Your task to perform on an android device: turn on bluetooth scan Image 0: 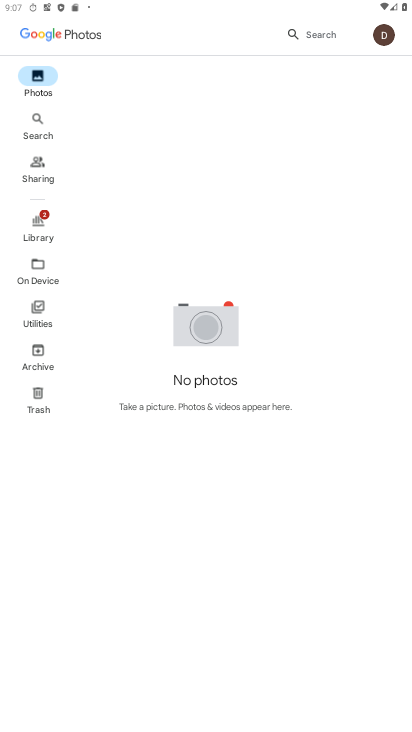
Step 0: press home button
Your task to perform on an android device: turn on bluetooth scan Image 1: 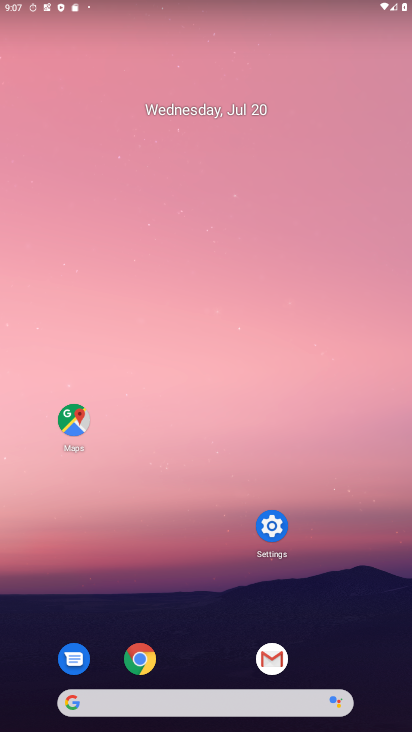
Step 1: click (281, 519)
Your task to perform on an android device: turn on bluetooth scan Image 2: 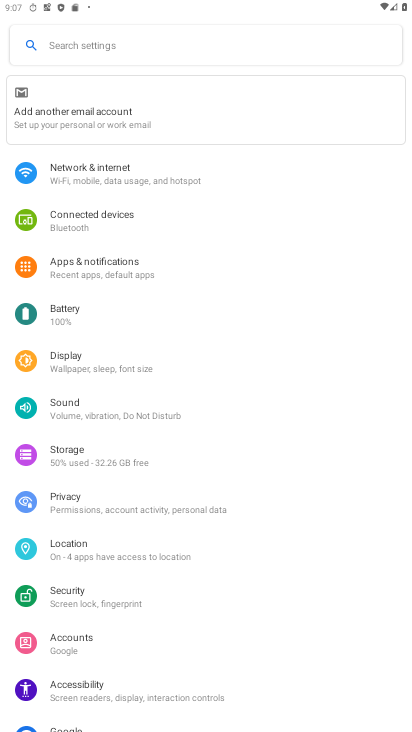
Step 2: click (104, 544)
Your task to perform on an android device: turn on bluetooth scan Image 3: 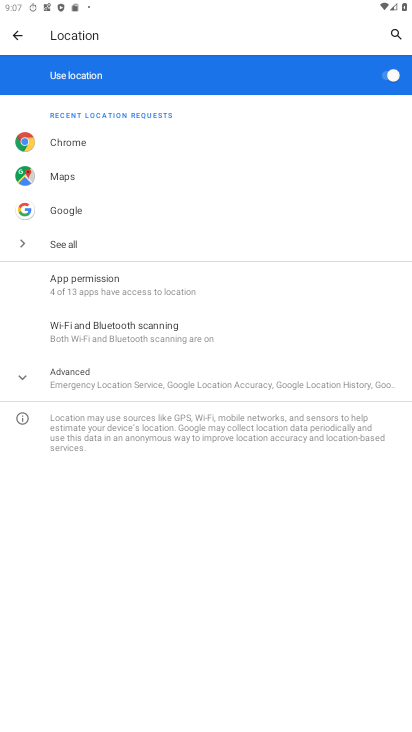
Step 3: click (138, 329)
Your task to perform on an android device: turn on bluetooth scan Image 4: 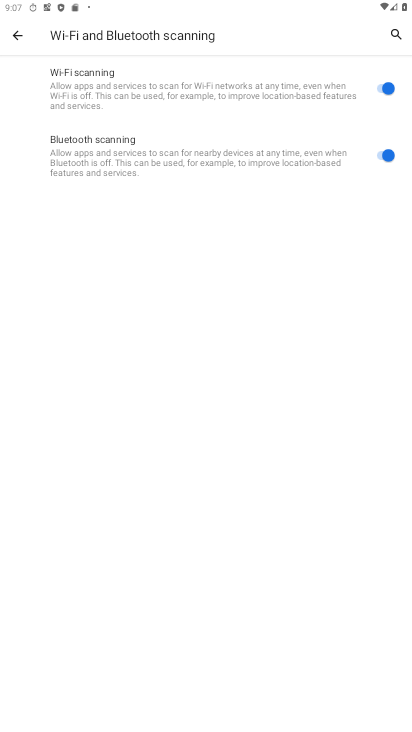
Step 4: click (246, 161)
Your task to perform on an android device: turn on bluetooth scan Image 5: 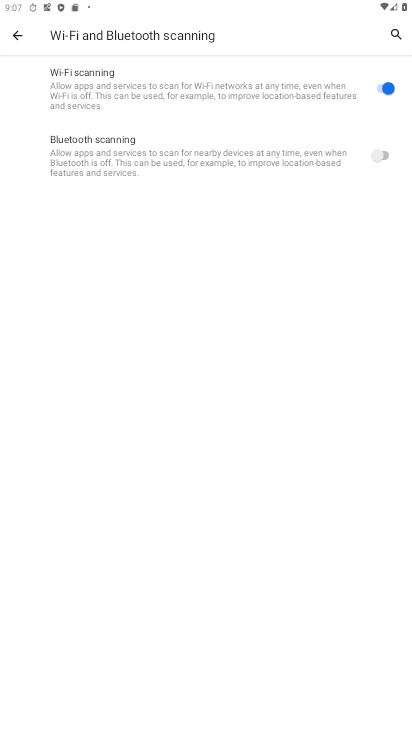
Step 5: click (246, 160)
Your task to perform on an android device: turn on bluetooth scan Image 6: 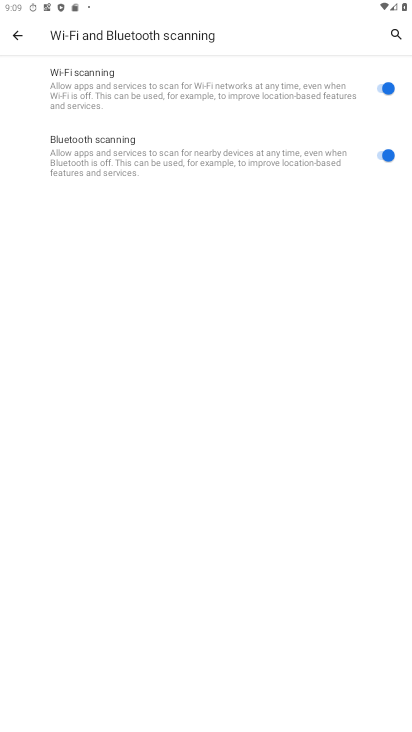
Step 6: task complete